Your task to perform on an android device: Show the shopping cart on ebay. Search for "macbook pro 15 inch" on ebay, select the first entry, add it to the cart, then select checkout. Image 0: 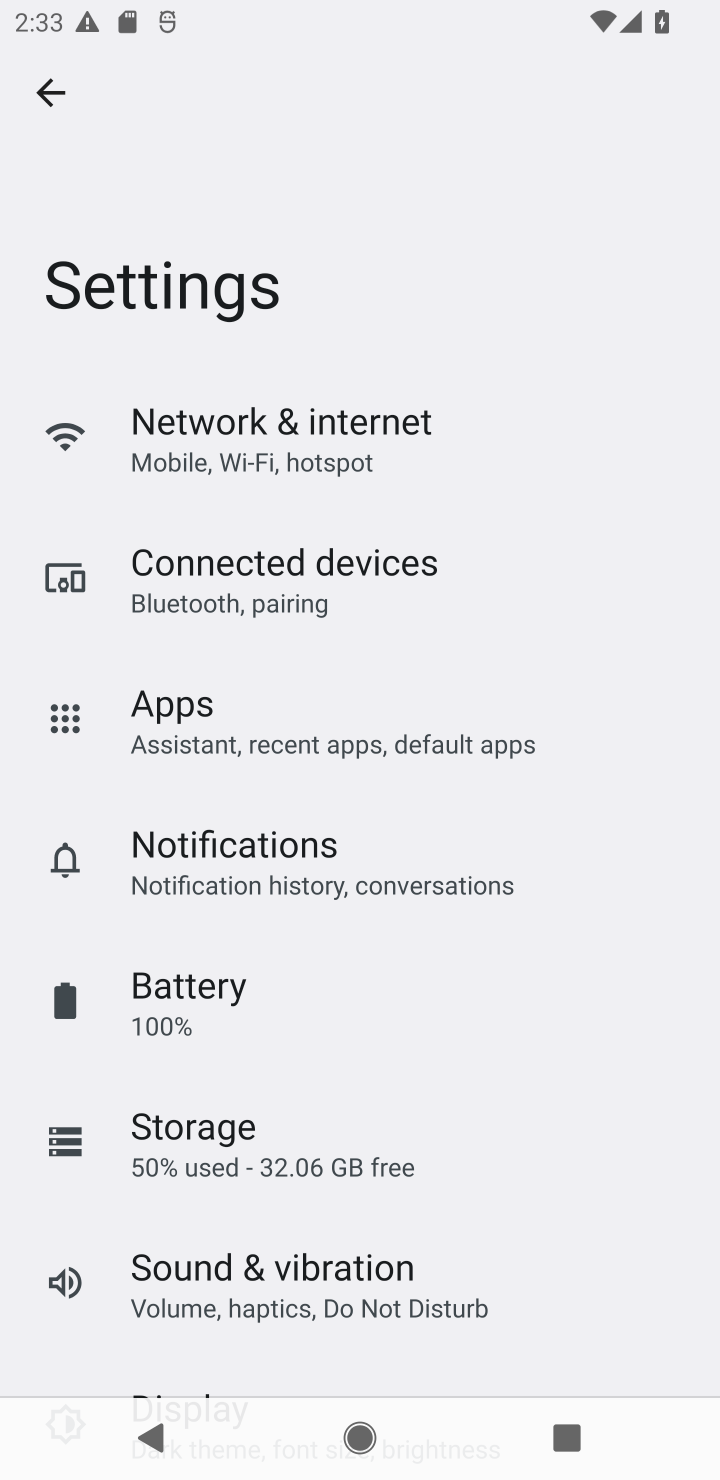
Step 0: press home button
Your task to perform on an android device: Show the shopping cart on ebay. Search for "macbook pro 15 inch" on ebay, select the first entry, add it to the cart, then select checkout. Image 1: 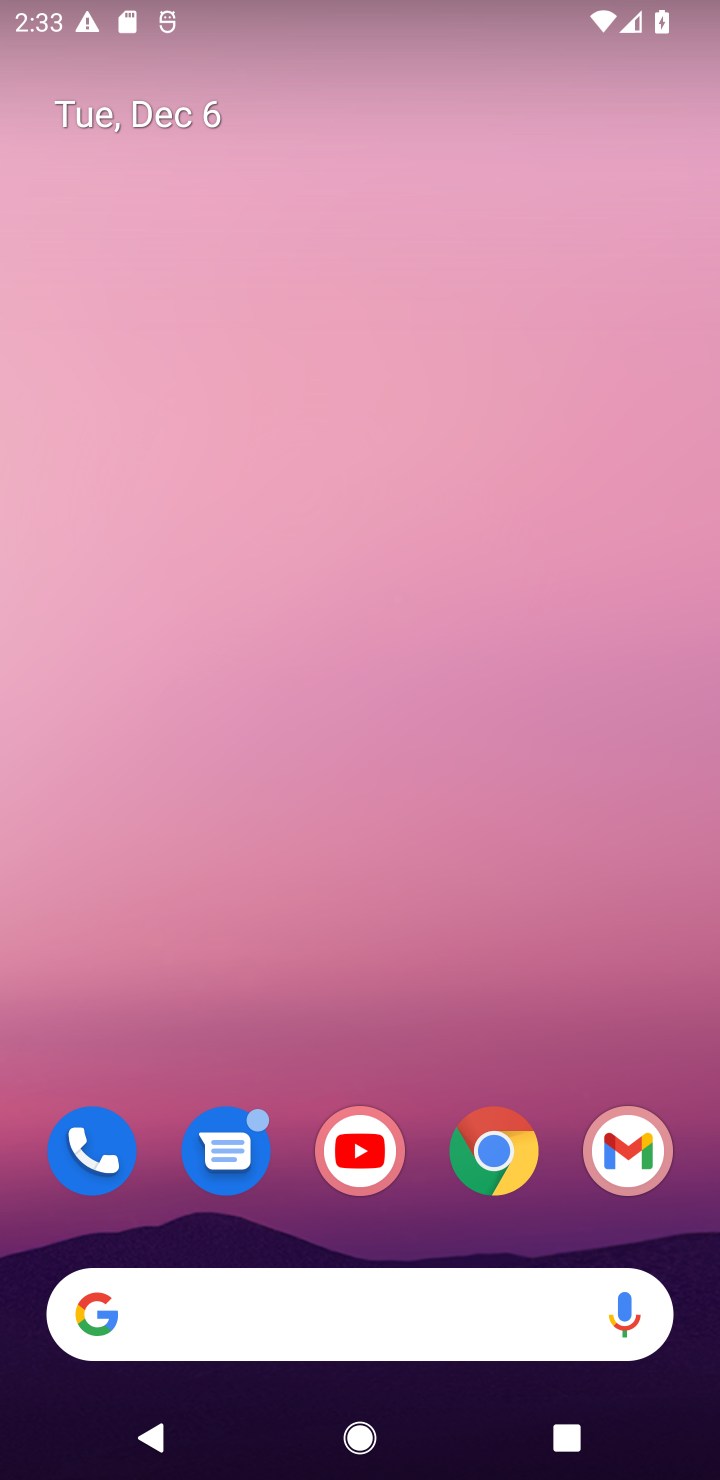
Step 1: click (498, 1152)
Your task to perform on an android device: Show the shopping cart on ebay. Search for "macbook pro 15 inch" on ebay, select the first entry, add it to the cart, then select checkout. Image 2: 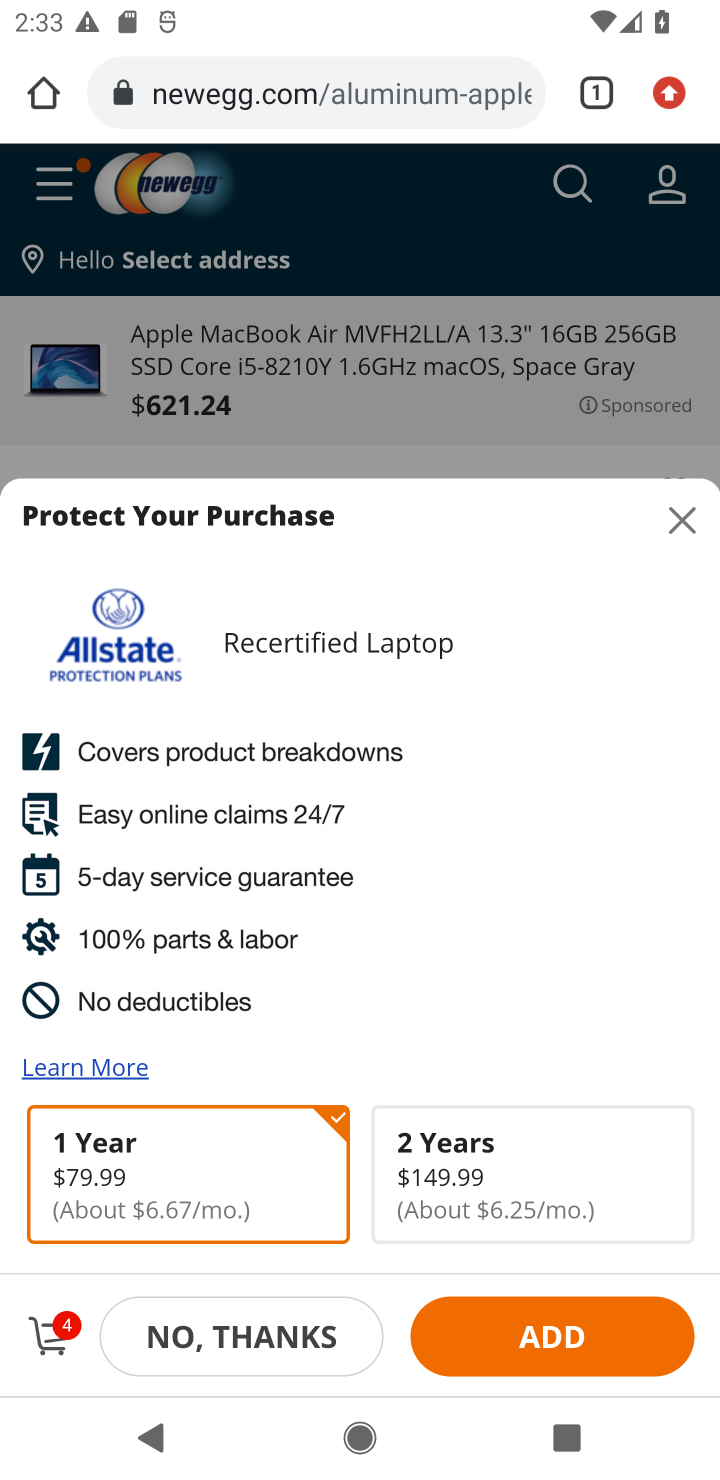
Step 2: click (231, 95)
Your task to perform on an android device: Show the shopping cart on ebay. Search for "macbook pro 15 inch" on ebay, select the first entry, add it to the cart, then select checkout. Image 3: 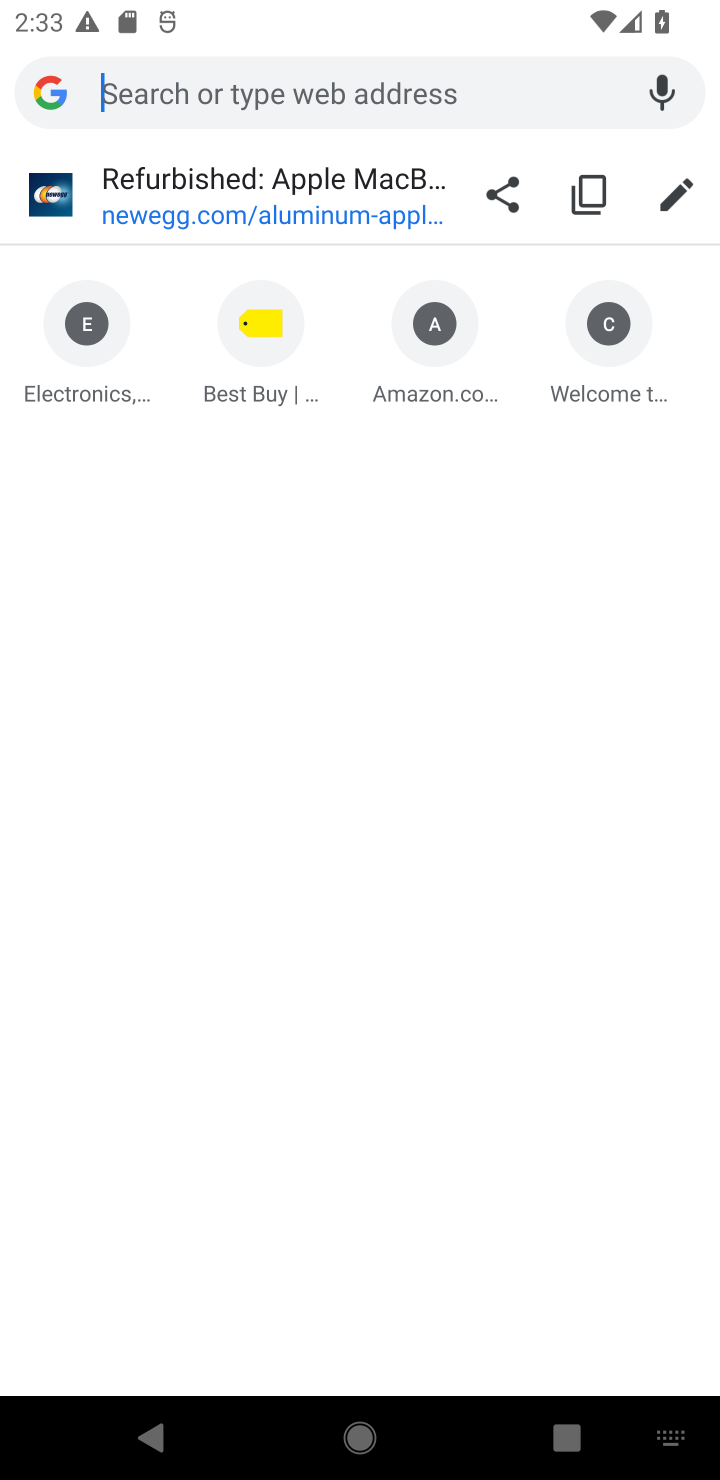
Step 3: type "ebay.com"
Your task to perform on an android device: Show the shopping cart on ebay. Search for "macbook pro 15 inch" on ebay, select the first entry, add it to the cart, then select checkout. Image 4: 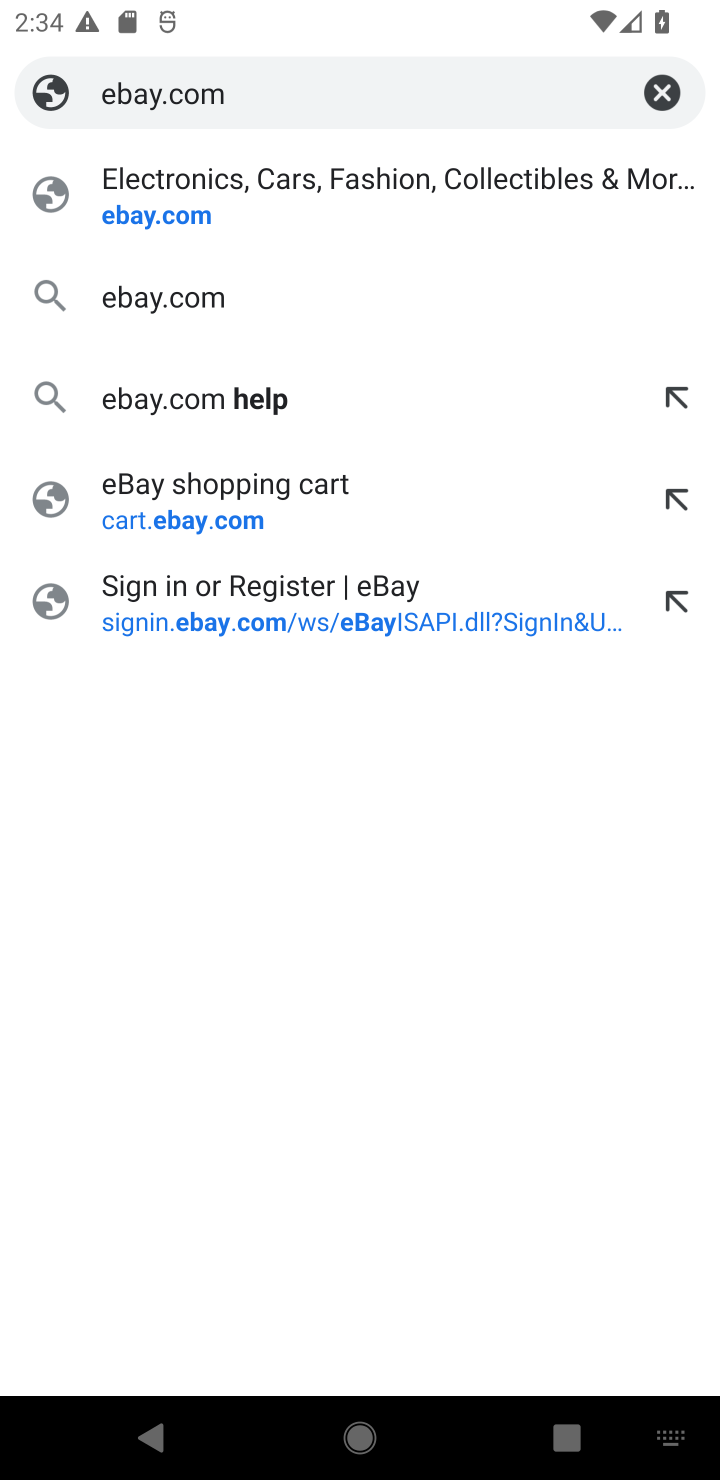
Step 4: click (134, 215)
Your task to perform on an android device: Show the shopping cart on ebay. Search for "macbook pro 15 inch" on ebay, select the first entry, add it to the cart, then select checkout. Image 5: 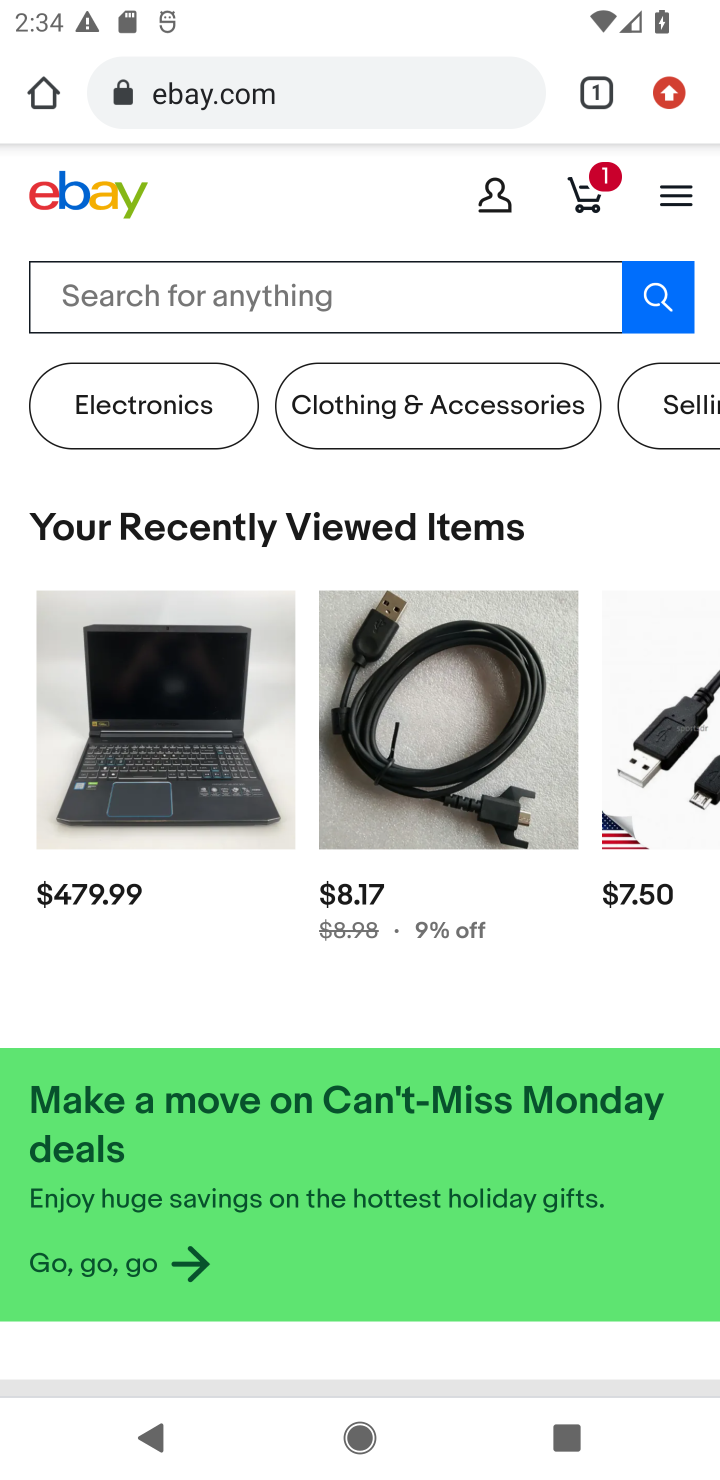
Step 5: click (583, 202)
Your task to perform on an android device: Show the shopping cart on ebay. Search for "macbook pro 15 inch" on ebay, select the first entry, add it to the cart, then select checkout. Image 6: 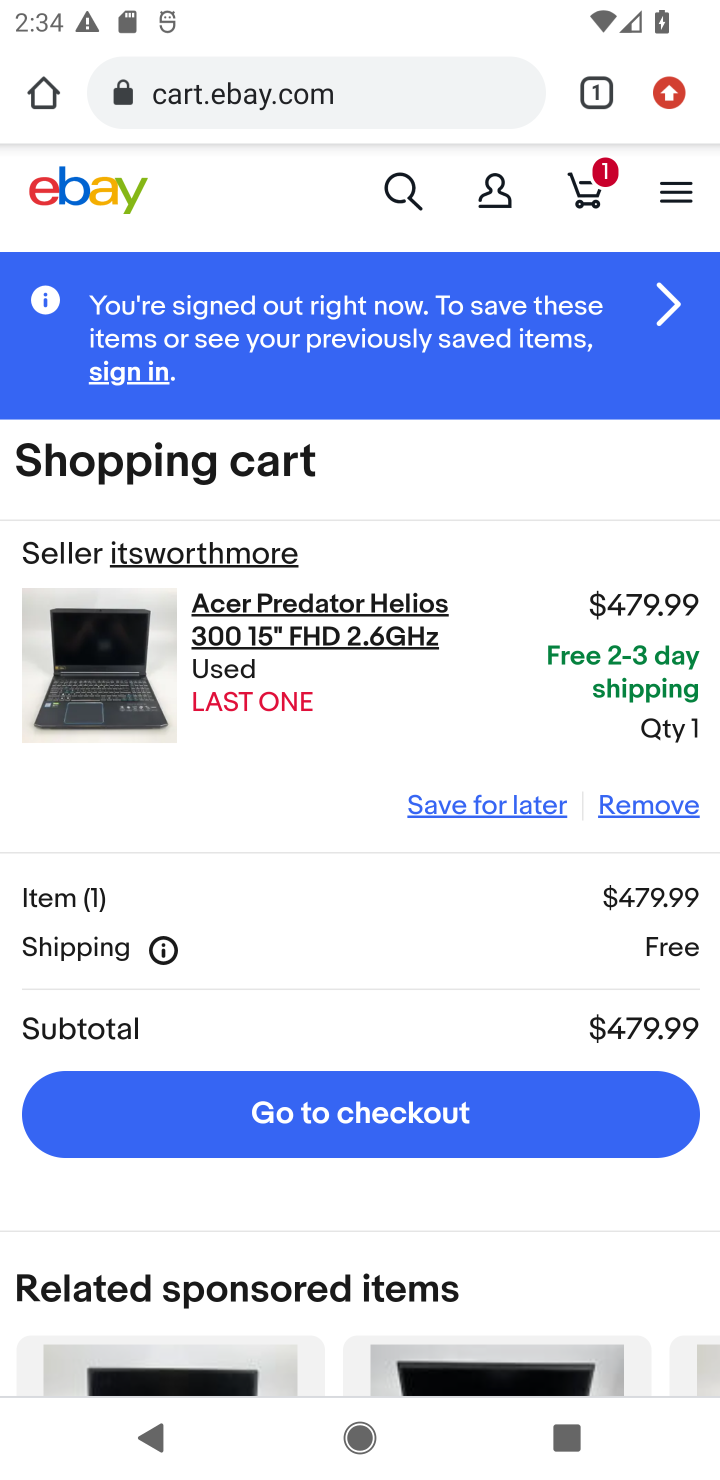
Step 6: click (401, 190)
Your task to perform on an android device: Show the shopping cart on ebay. Search for "macbook pro 15 inch" on ebay, select the first entry, add it to the cart, then select checkout. Image 7: 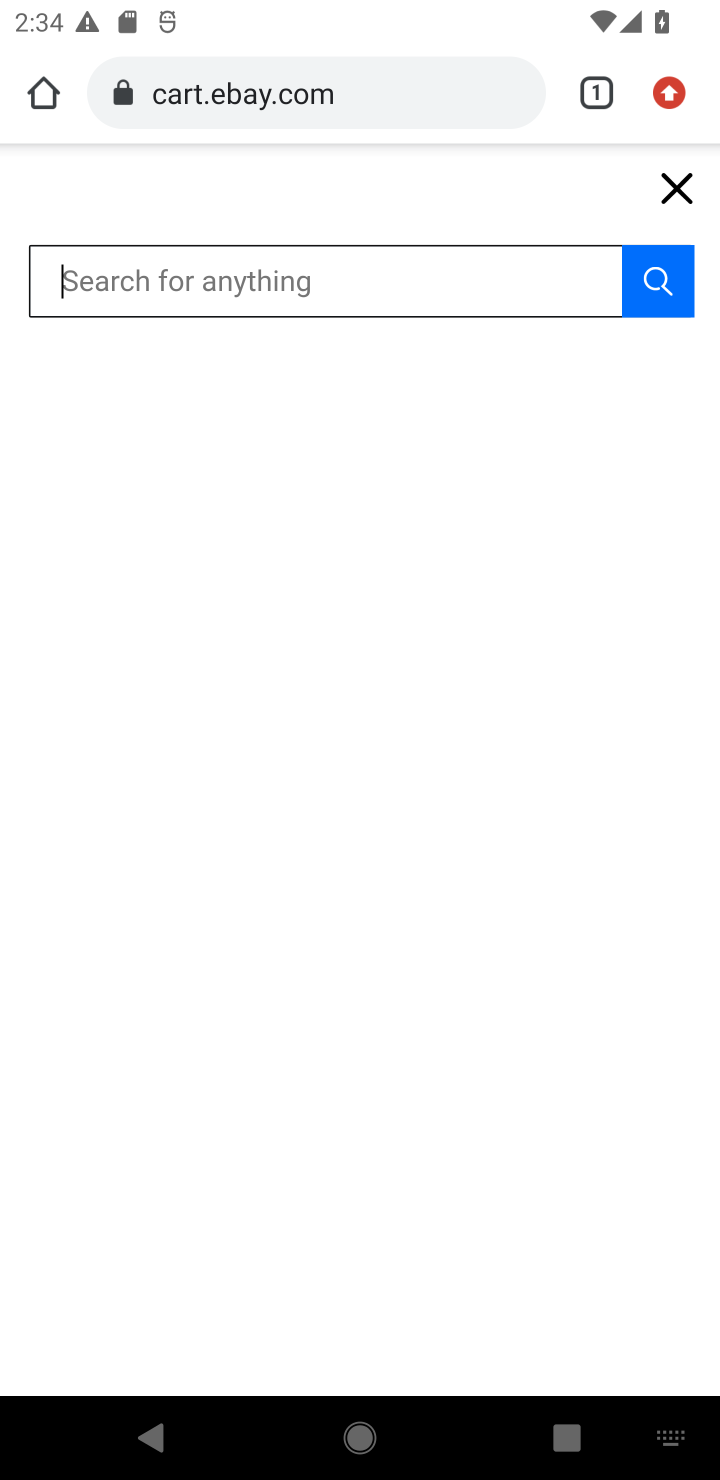
Step 7: type "macbook pro 15 inch"
Your task to perform on an android device: Show the shopping cart on ebay. Search for "macbook pro 15 inch" on ebay, select the first entry, add it to the cart, then select checkout. Image 8: 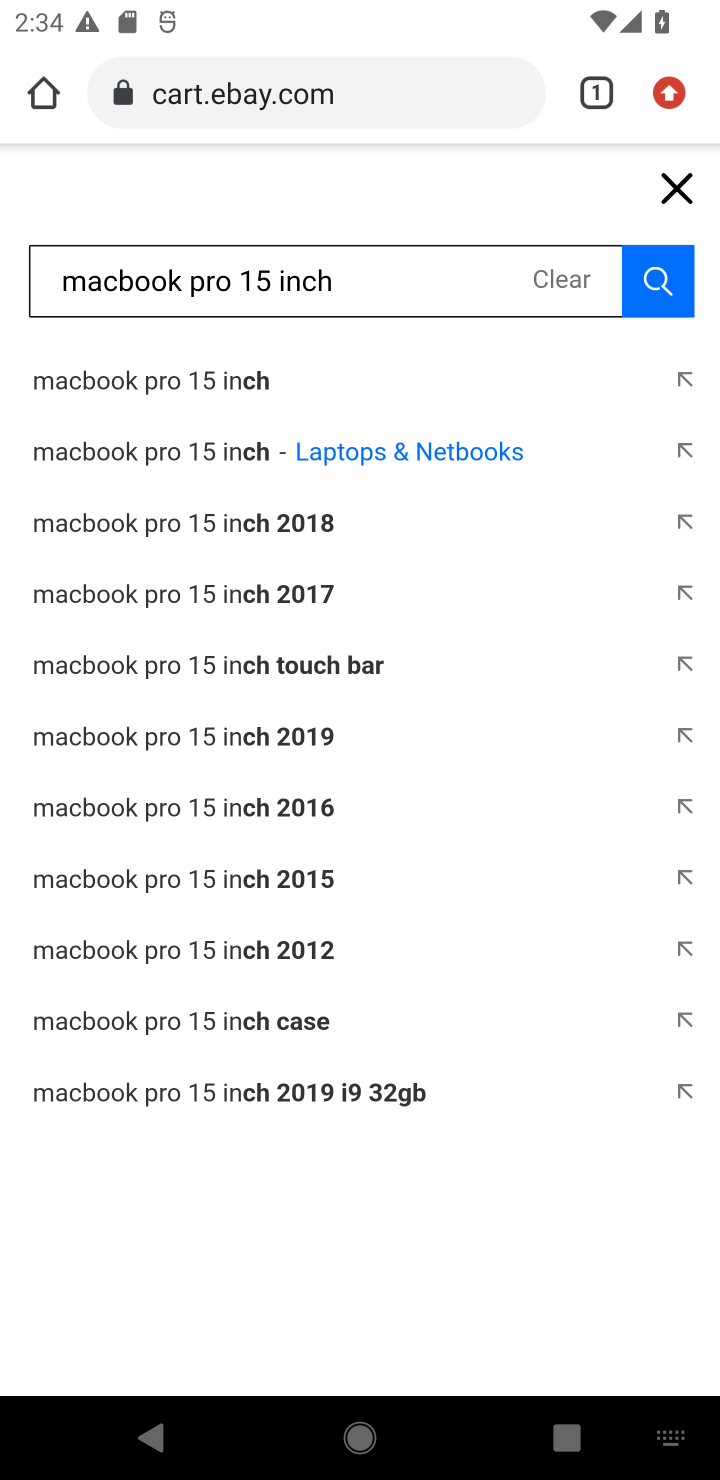
Step 8: click (228, 385)
Your task to perform on an android device: Show the shopping cart on ebay. Search for "macbook pro 15 inch" on ebay, select the first entry, add it to the cart, then select checkout. Image 9: 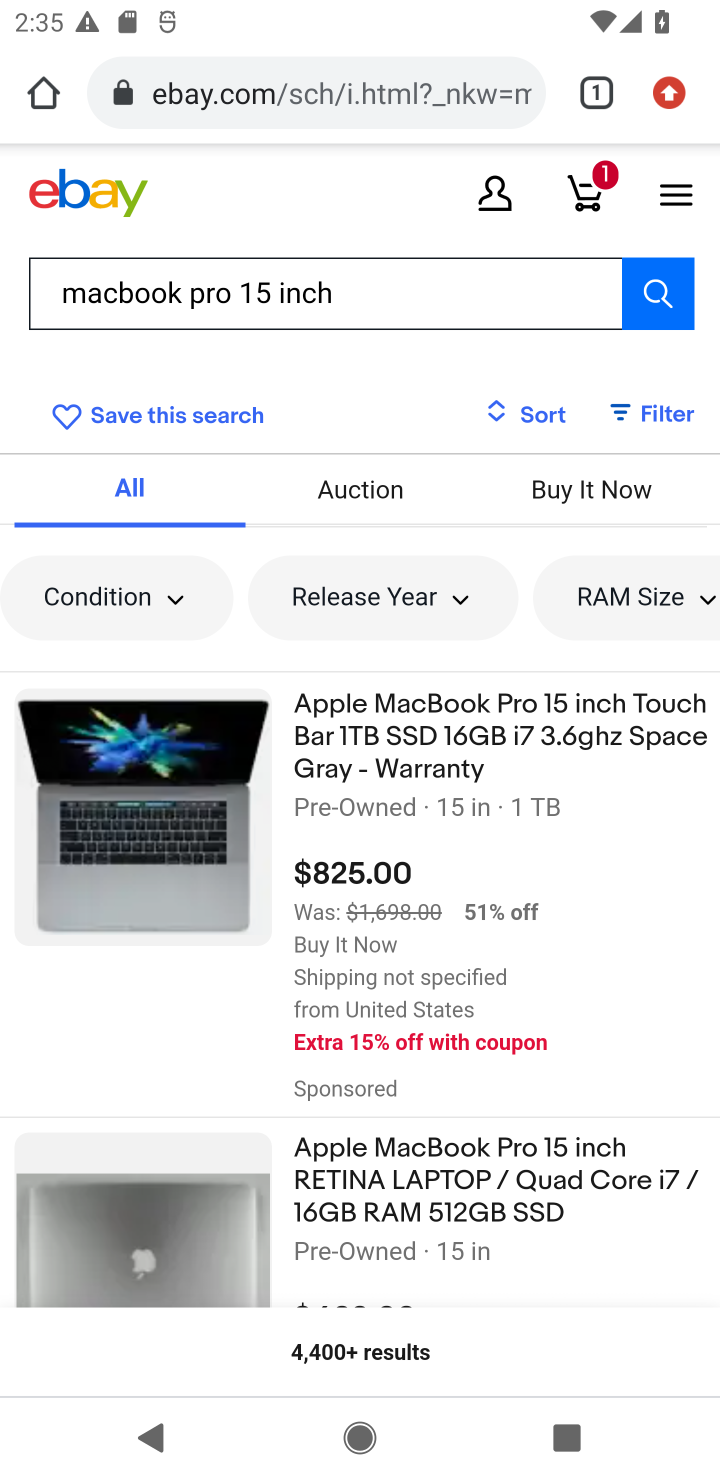
Step 9: click (379, 754)
Your task to perform on an android device: Show the shopping cart on ebay. Search for "macbook pro 15 inch" on ebay, select the first entry, add it to the cart, then select checkout. Image 10: 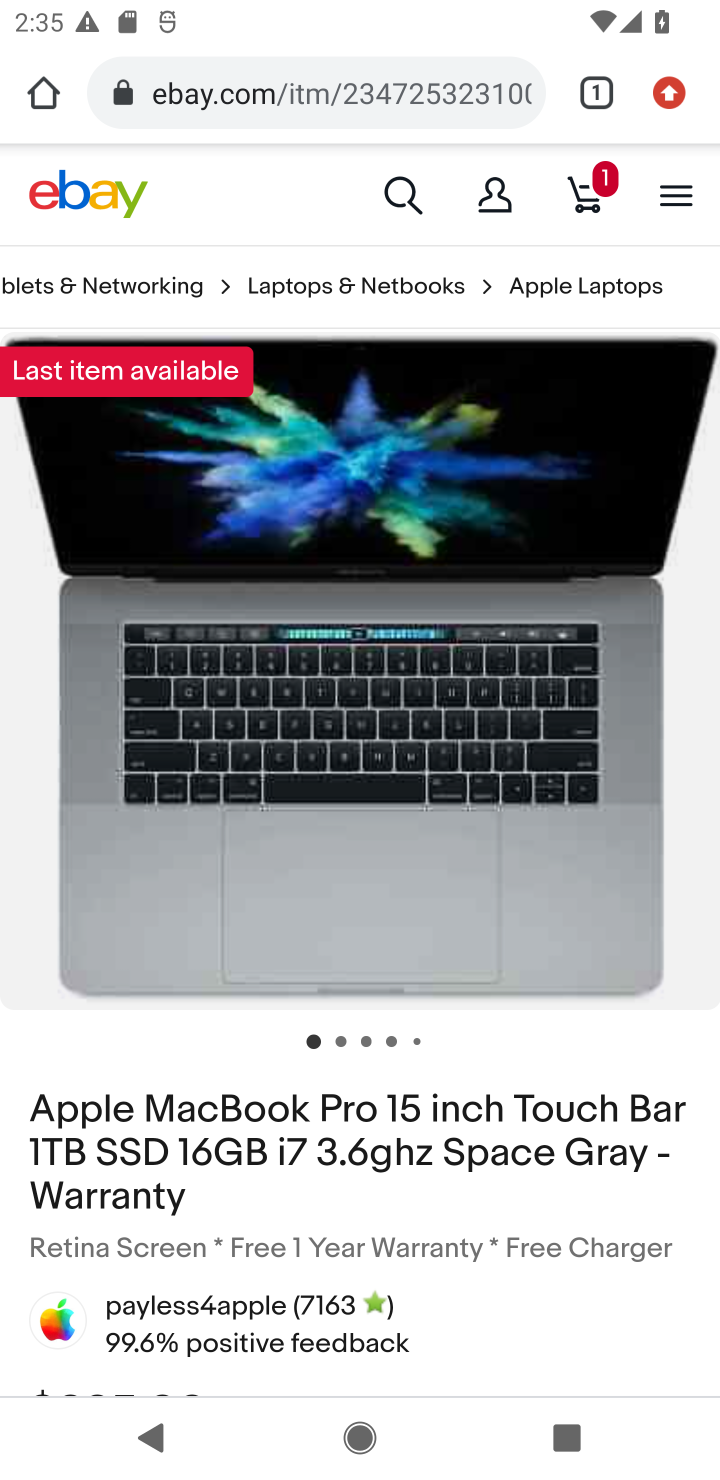
Step 10: drag from (426, 1233) to (440, 565)
Your task to perform on an android device: Show the shopping cart on ebay. Search for "macbook pro 15 inch" on ebay, select the first entry, add it to the cart, then select checkout. Image 11: 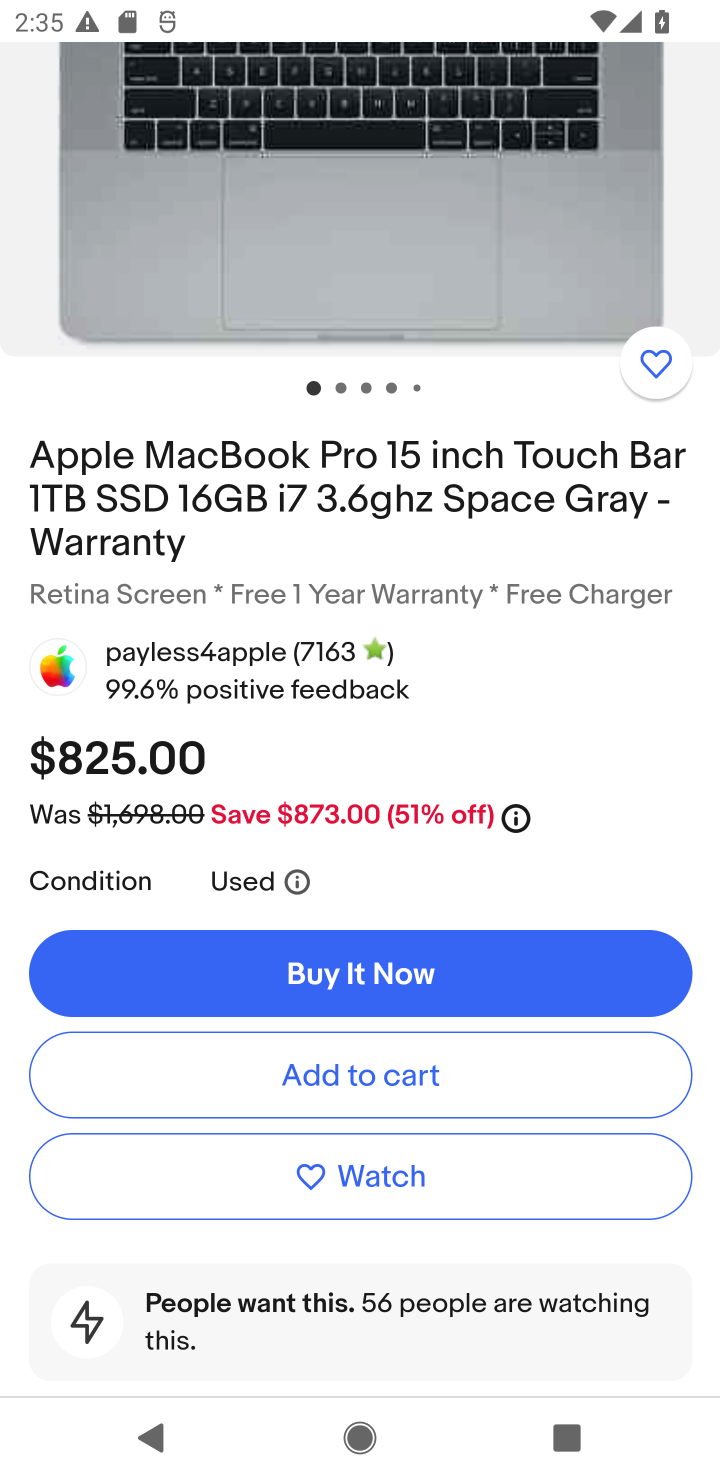
Step 11: click (332, 1078)
Your task to perform on an android device: Show the shopping cart on ebay. Search for "macbook pro 15 inch" on ebay, select the first entry, add it to the cart, then select checkout. Image 12: 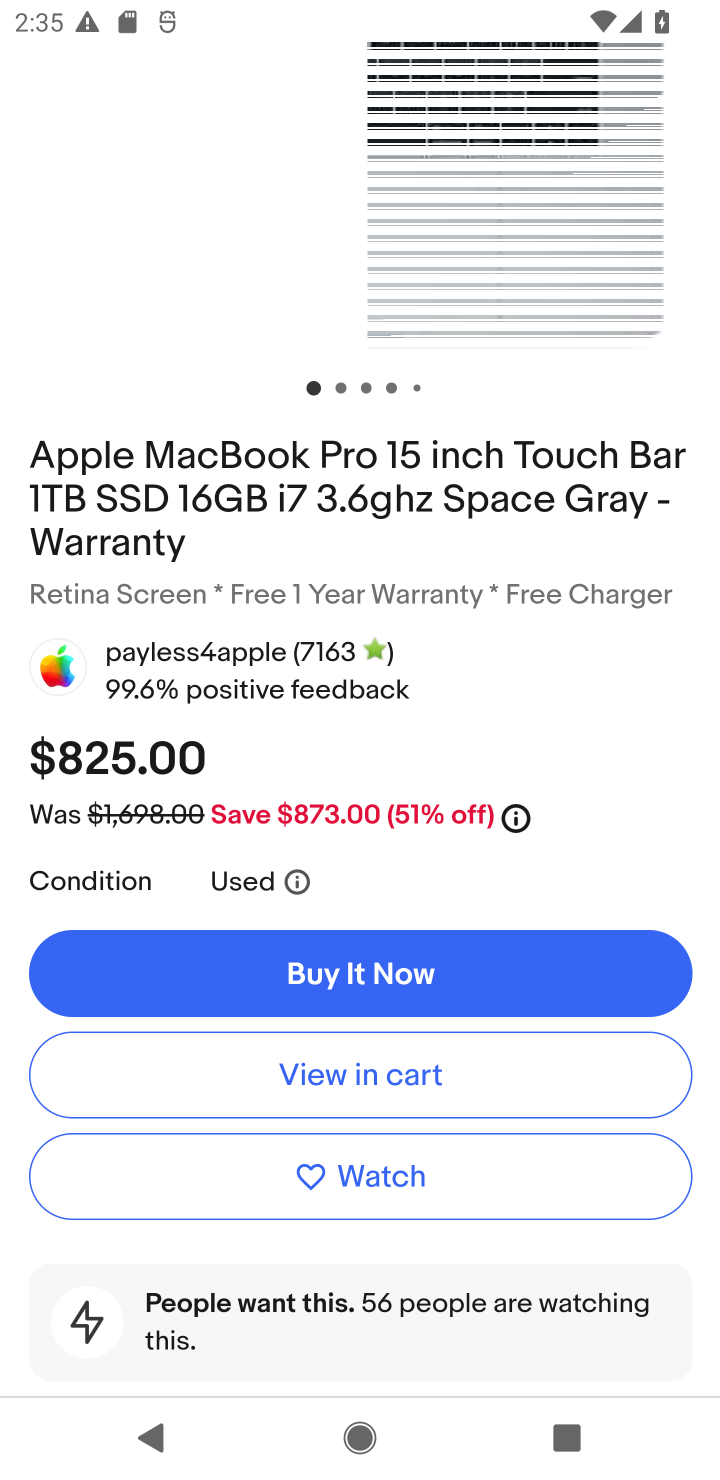
Step 12: click (332, 1078)
Your task to perform on an android device: Show the shopping cart on ebay. Search for "macbook pro 15 inch" on ebay, select the first entry, add it to the cart, then select checkout. Image 13: 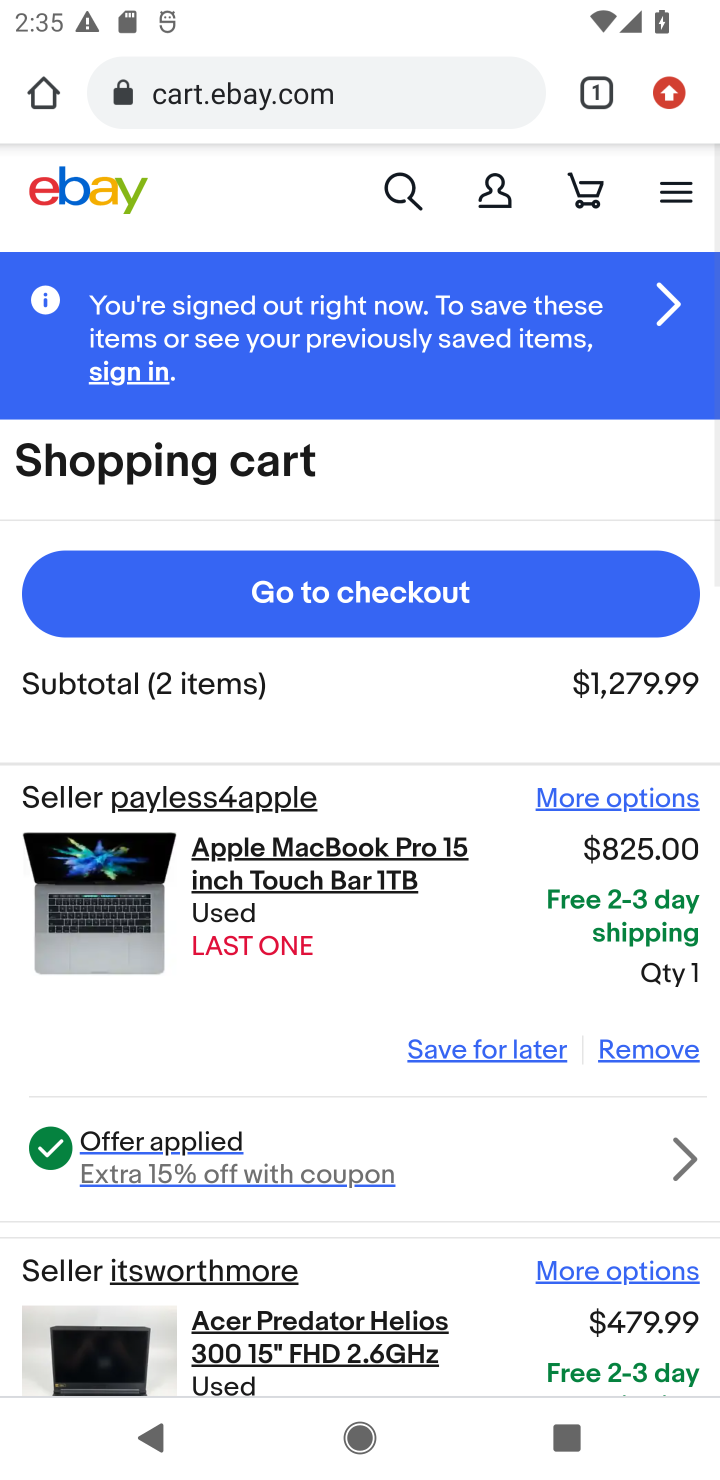
Step 13: click (342, 609)
Your task to perform on an android device: Show the shopping cart on ebay. Search for "macbook pro 15 inch" on ebay, select the first entry, add it to the cart, then select checkout. Image 14: 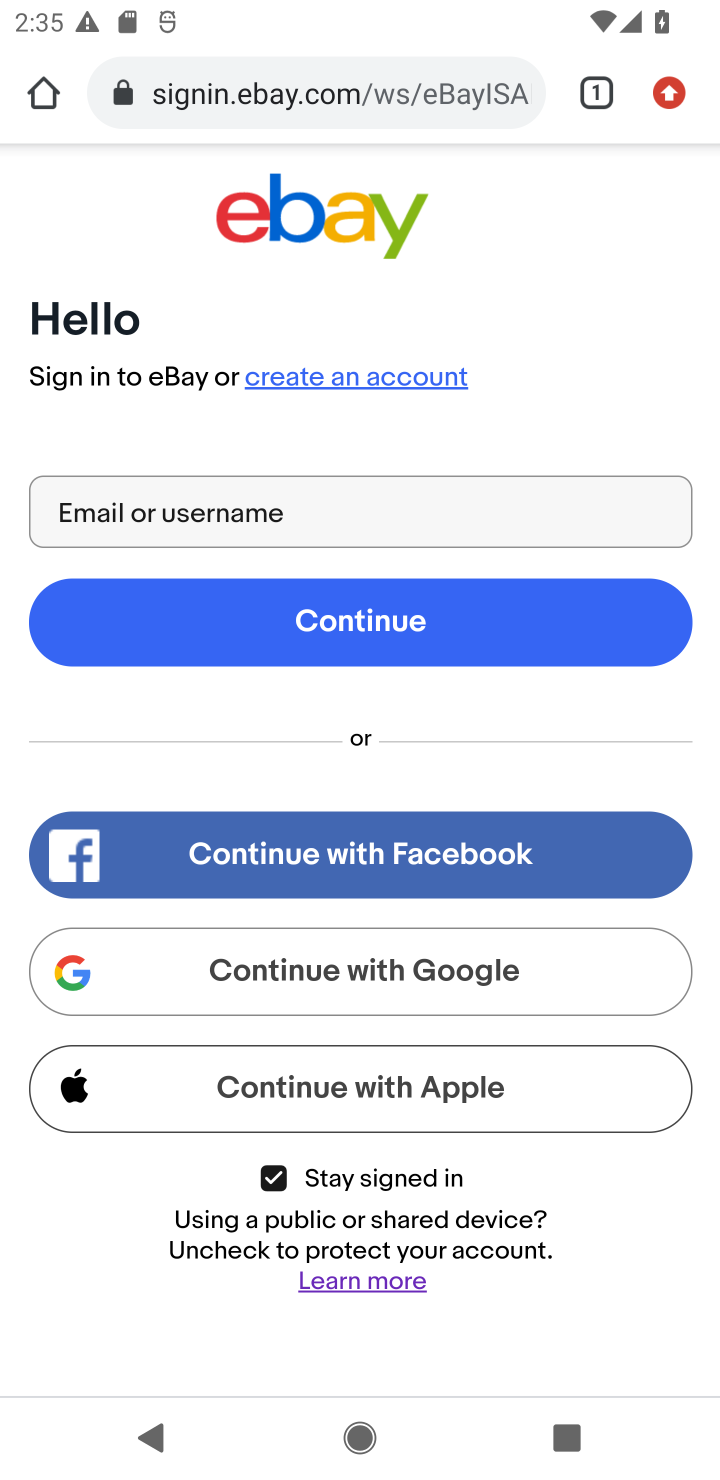
Step 14: task complete